Your task to perform on an android device: Clear the cart on ebay.com. Add "macbook air" to the cart on ebay.com Image 0: 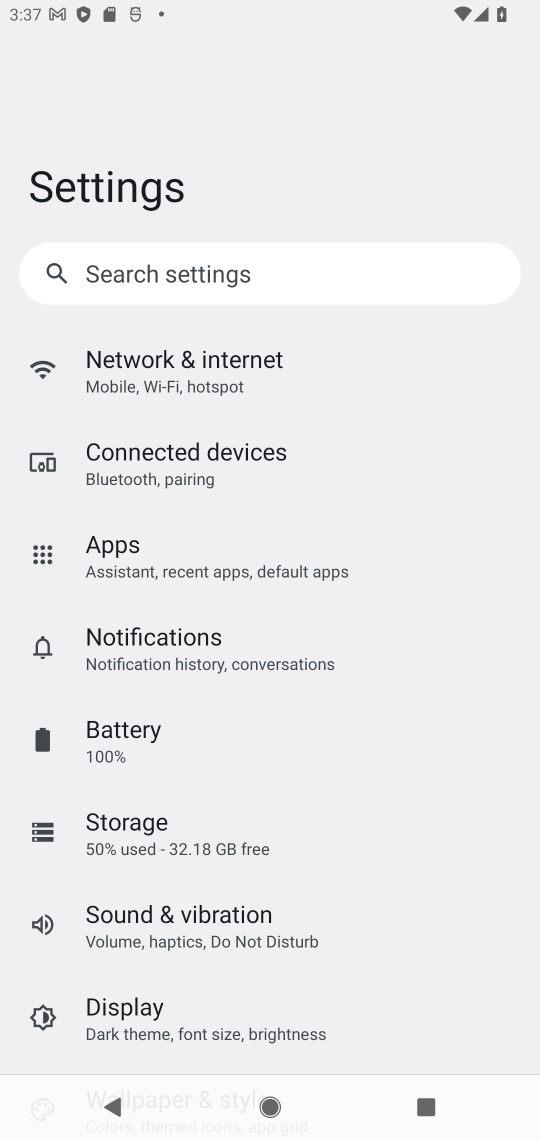
Step 0: press home button
Your task to perform on an android device: Clear the cart on ebay.com. Add "macbook air" to the cart on ebay.com Image 1: 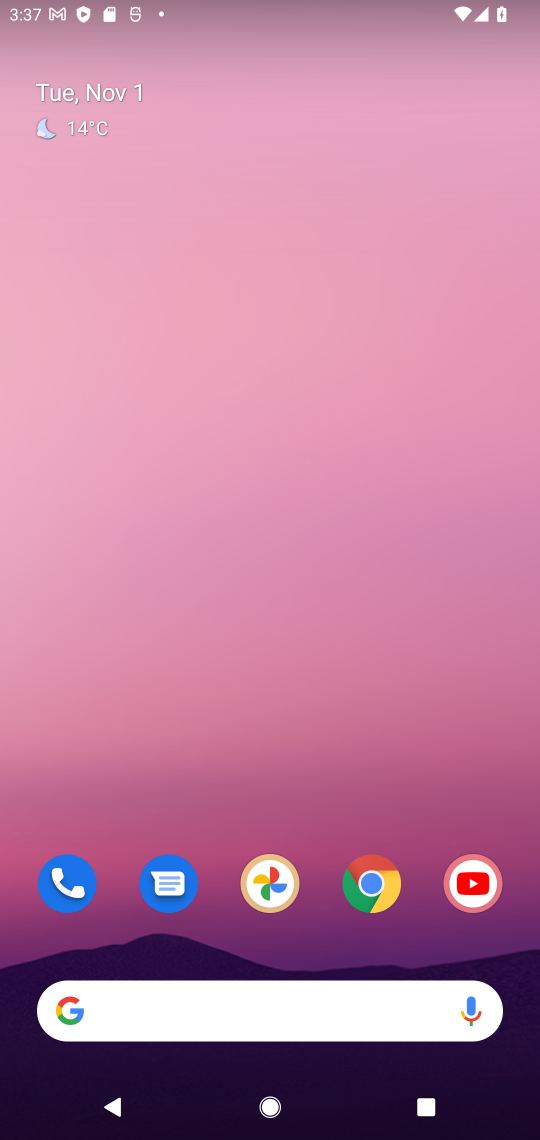
Step 1: click (362, 871)
Your task to perform on an android device: Clear the cart on ebay.com. Add "macbook air" to the cart on ebay.com Image 2: 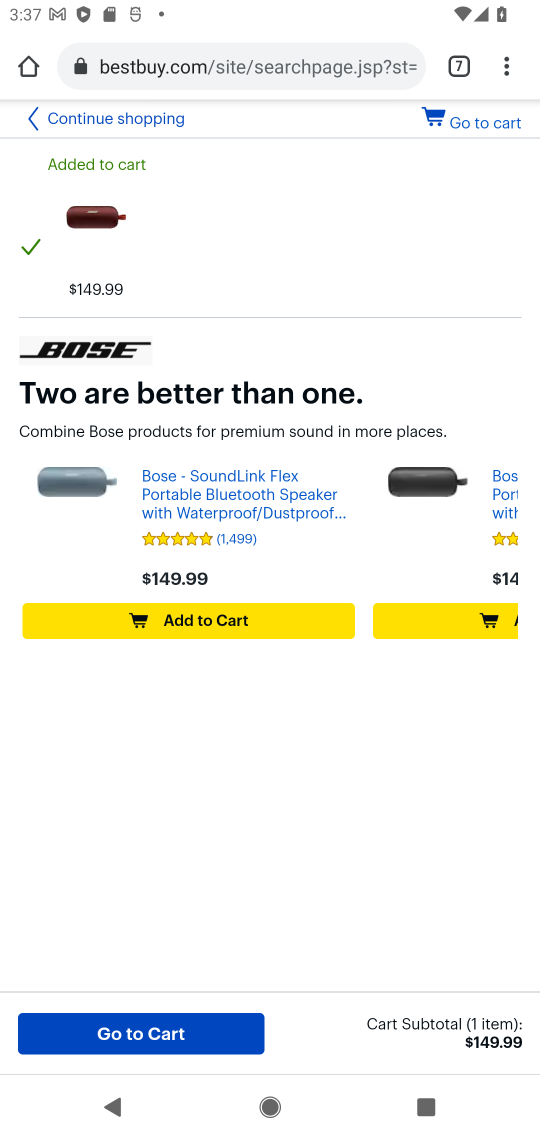
Step 2: click (459, 65)
Your task to perform on an android device: Clear the cart on ebay.com. Add "macbook air" to the cart on ebay.com Image 3: 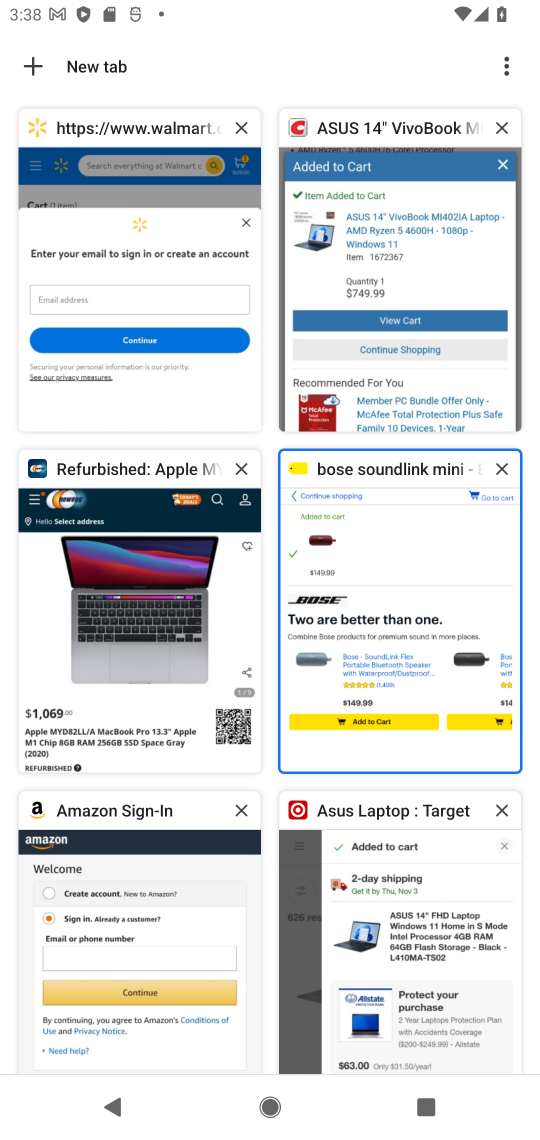
Step 3: drag from (388, 346) to (304, 957)
Your task to perform on an android device: Clear the cart on ebay.com. Add "macbook air" to the cart on ebay.com Image 4: 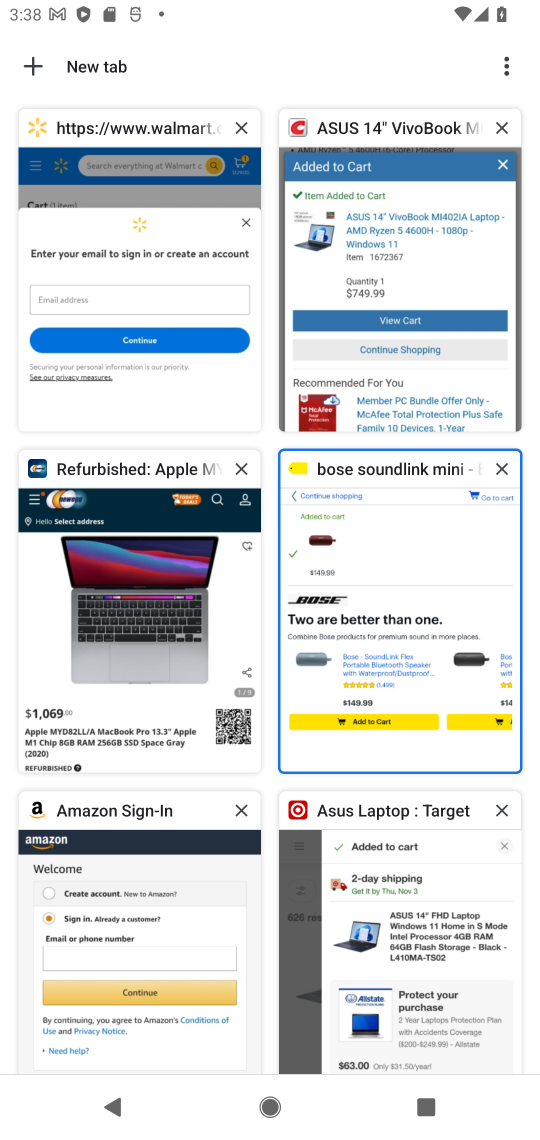
Step 4: drag from (304, 947) to (356, 206)
Your task to perform on an android device: Clear the cart on ebay.com. Add "macbook air" to the cart on ebay.com Image 5: 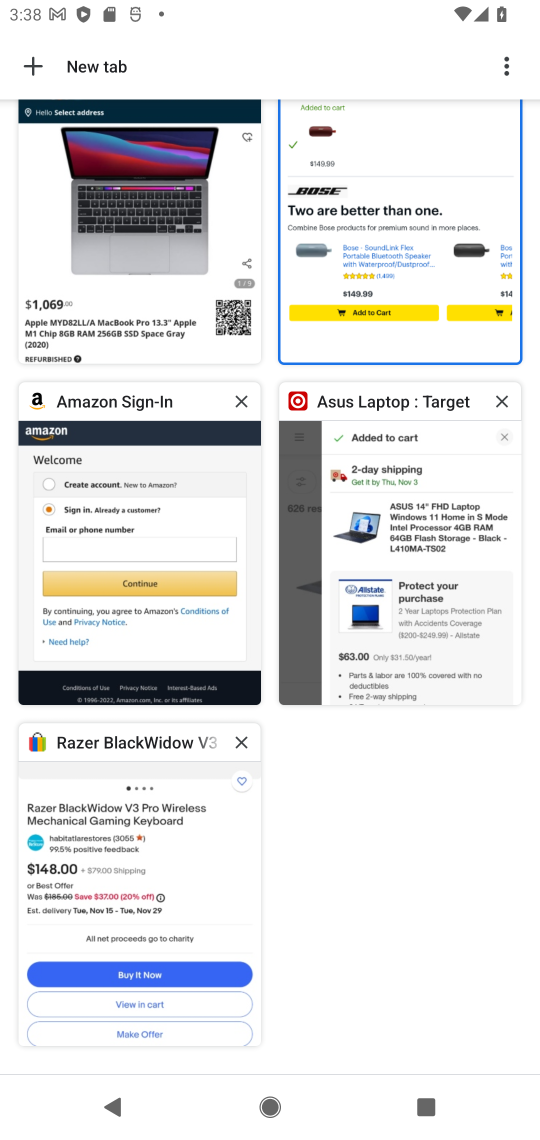
Step 5: click (134, 861)
Your task to perform on an android device: Clear the cart on ebay.com. Add "macbook air" to the cart on ebay.com Image 6: 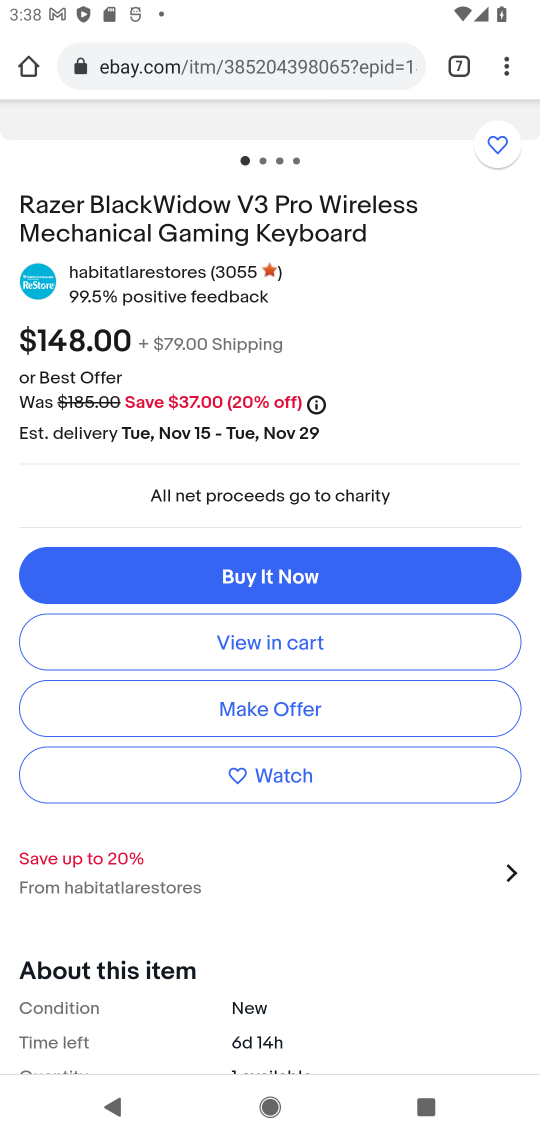
Step 6: drag from (422, 288) to (417, 962)
Your task to perform on an android device: Clear the cart on ebay.com. Add "macbook air" to the cart on ebay.com Image 7: 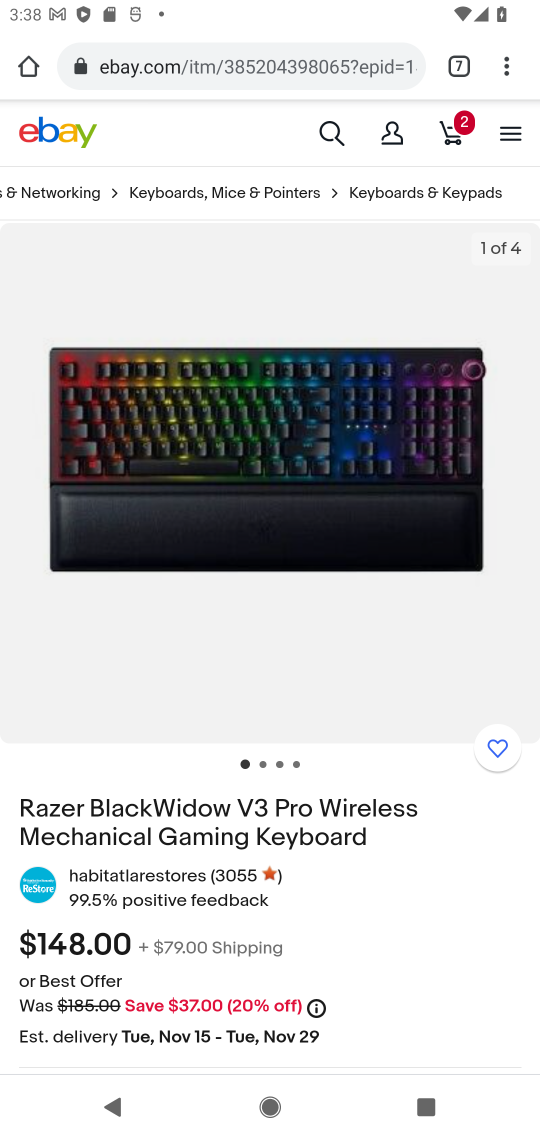
Step 7: click (458, 127)
Your task to perform on an android device: Clear the cart on ebay.com. Add "macbook air" to the cart on ebay.com Image 8: 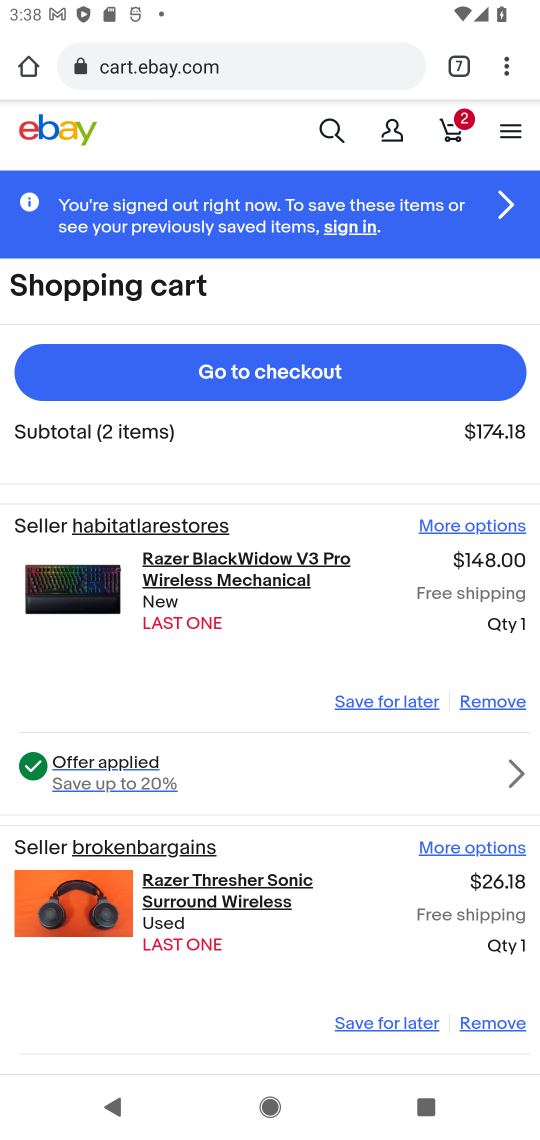
Step 8: click (474, 703)
Your task to perform on an android device: Clear the cart on ebay.com. Add "macbook air" to the cart on ebay.com Image 9: 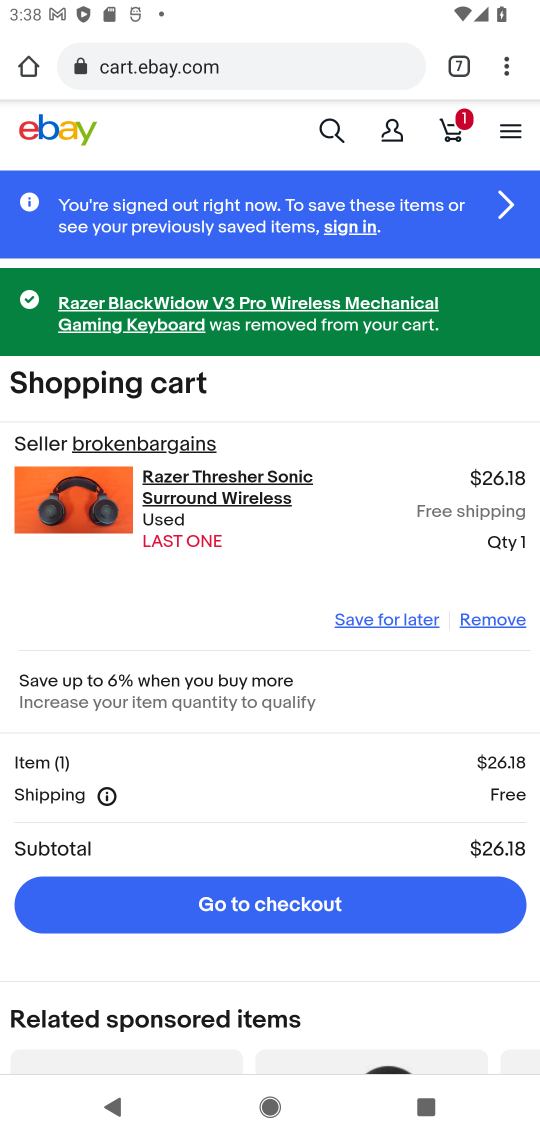
Step 9: click (486, 618)
Your task to perform on an android device: Clear the cart on ebay.com. Add "macbook air" to the cart on ebay.com Image 10: 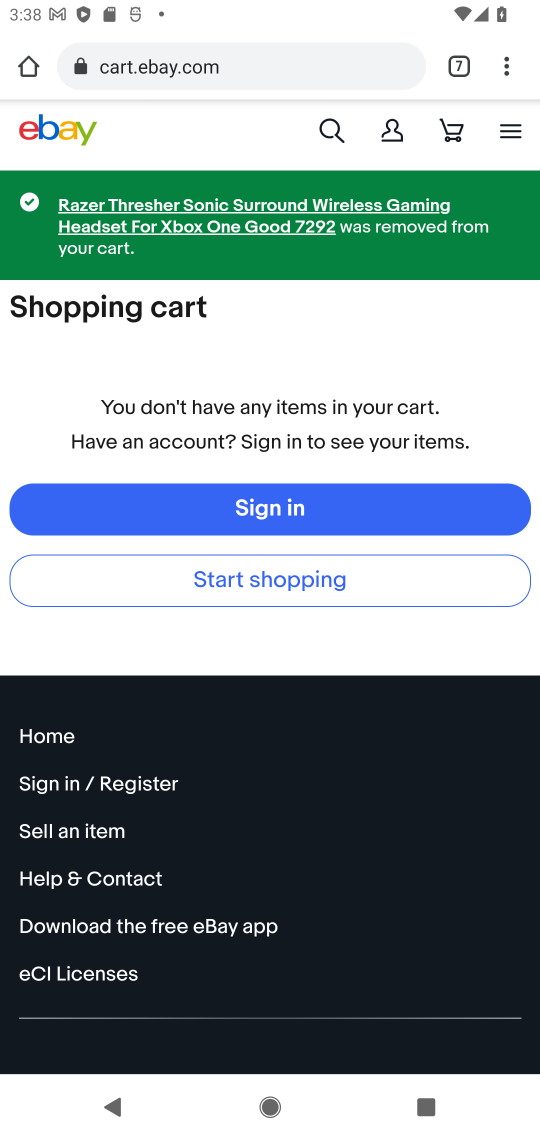
Step 10: click (332, 131)
Your task to perform on an android device: Clear the cart on ebay.com. Add "macbook air" to the cart on ebay.com Image 11: 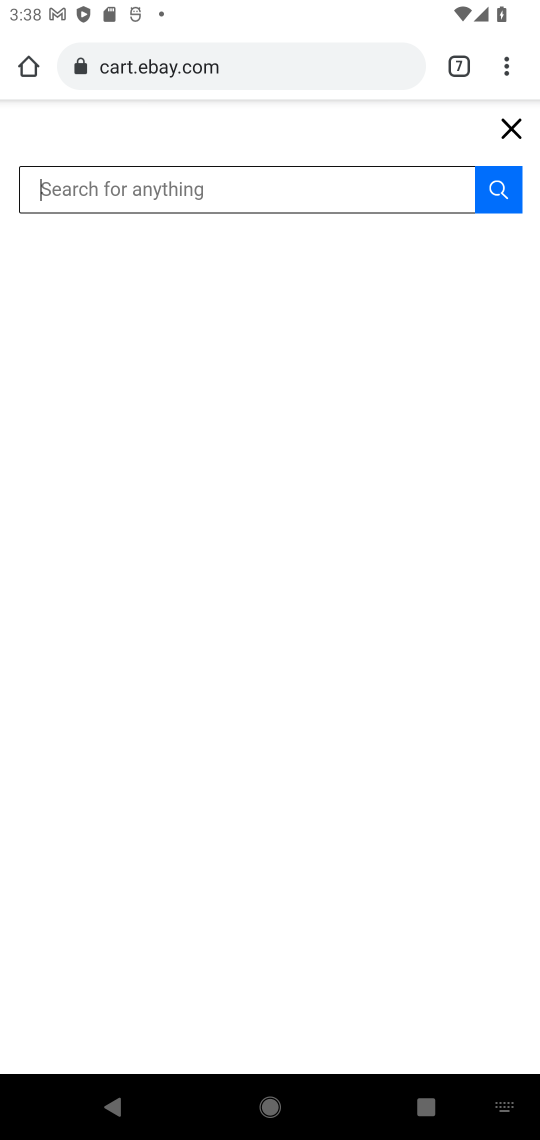
Step 11: click (315, 200)
Your task to perform on an android device: Clear the cart on ebay.com. Add "macbook air" to the cart on ebay.com Image 12: 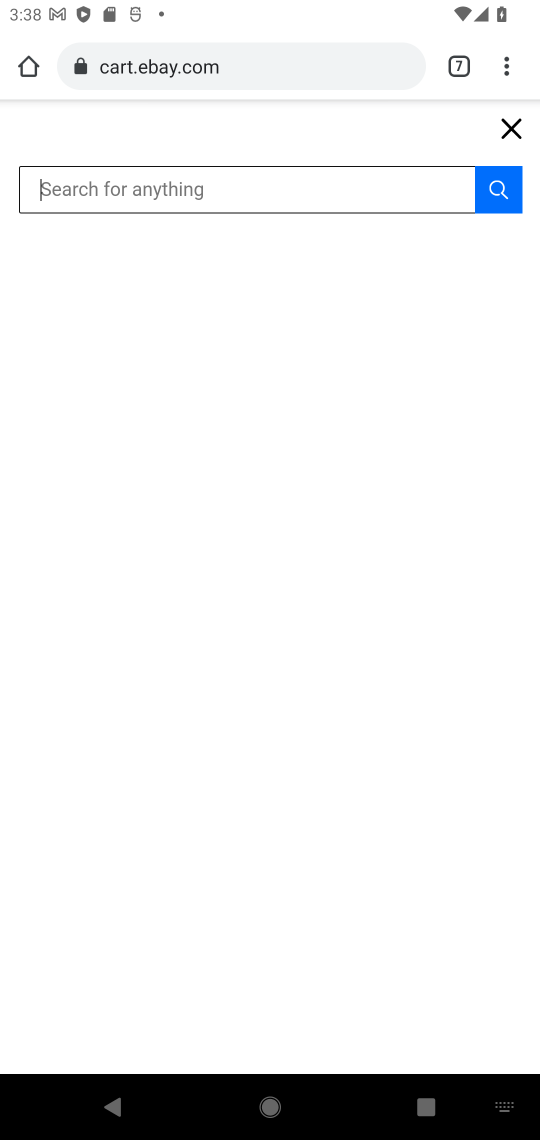
Step 12: type "macbook air"
Your task to perform on an android device: Clear the cart on ebay.com. Add "macbook air" to the cart on ebay.com Image 13: 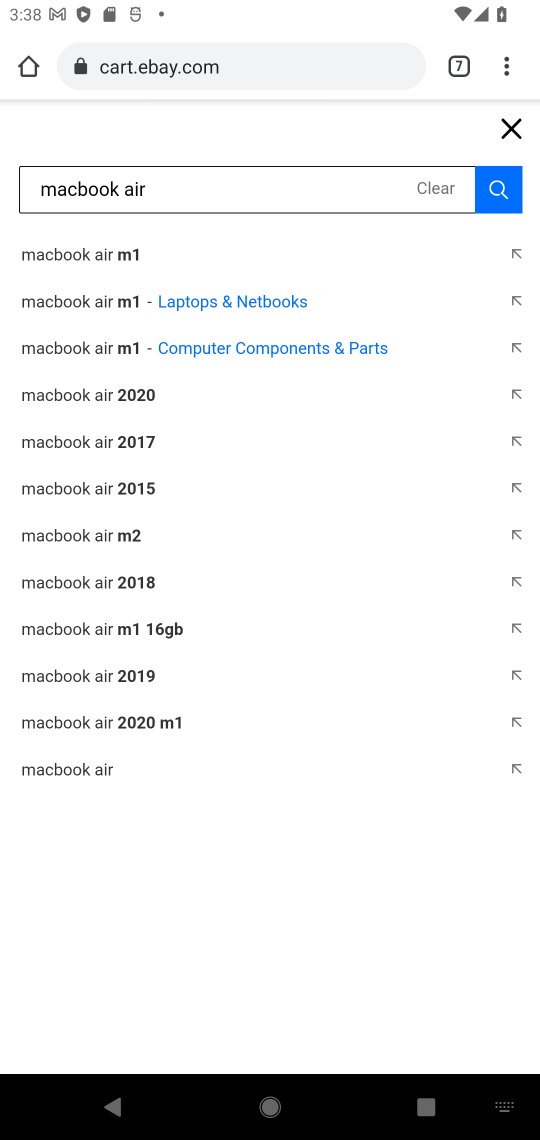
Step 13: click (44, 306)
Your task to perform on an android device: Clear the cart on ebay.com. Add "macbook air" to the cart on ebay.com Image 14: 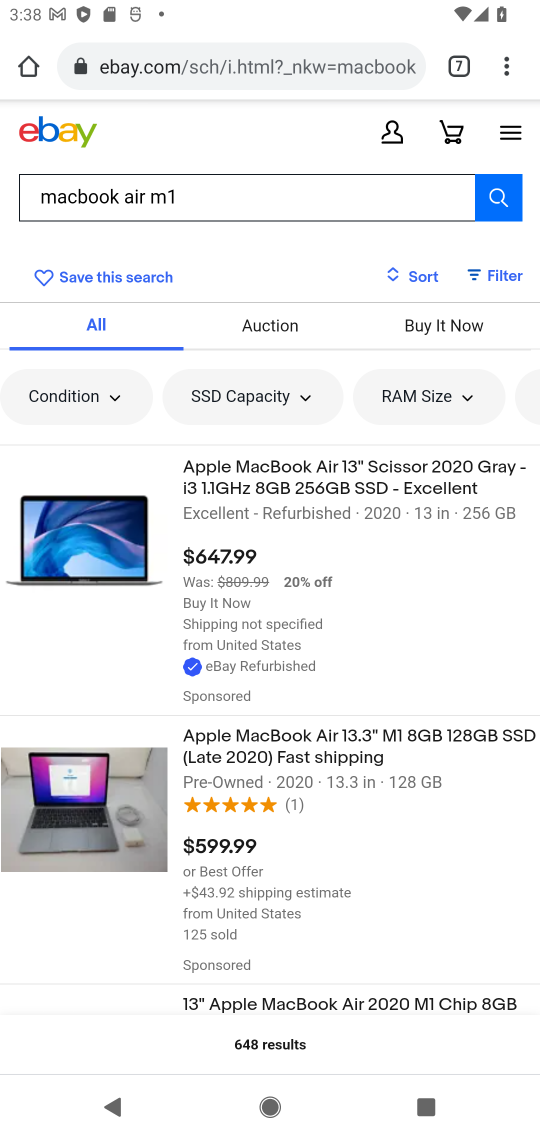
Step 14: click (262, 493)
Your task to perform on an android device: Clear the cart on ebay.com. Add "macbook air" to the cart on ebay.com Image 15: 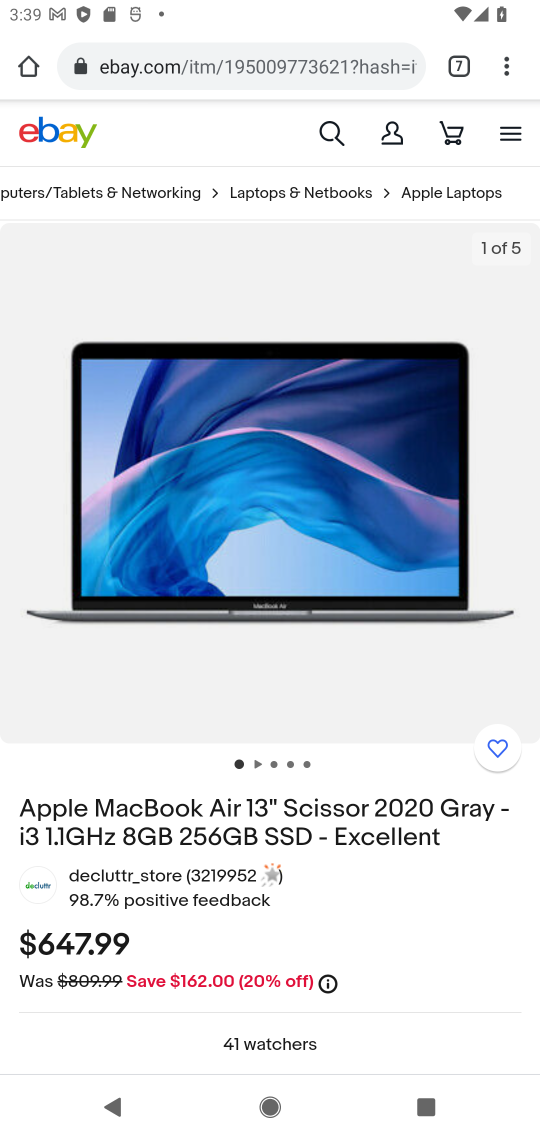
Step 15: drag from (419, 920) to (470, 356)
Your task to perform on an android device: Clear the cart on ebay.com. Add "macbook air" to the cart on ebay.com Image 16: 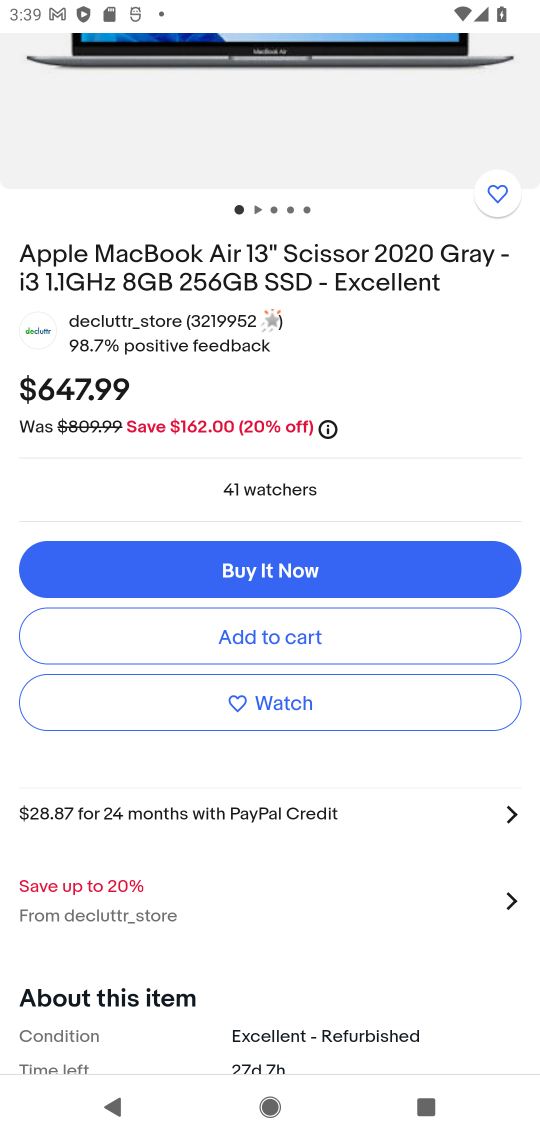
Step 16: click (326, 636)
Your task to perform on an android device: Clear the cart on ebay.com. Add "macbook air" to the cart on ebay.com Image 17: 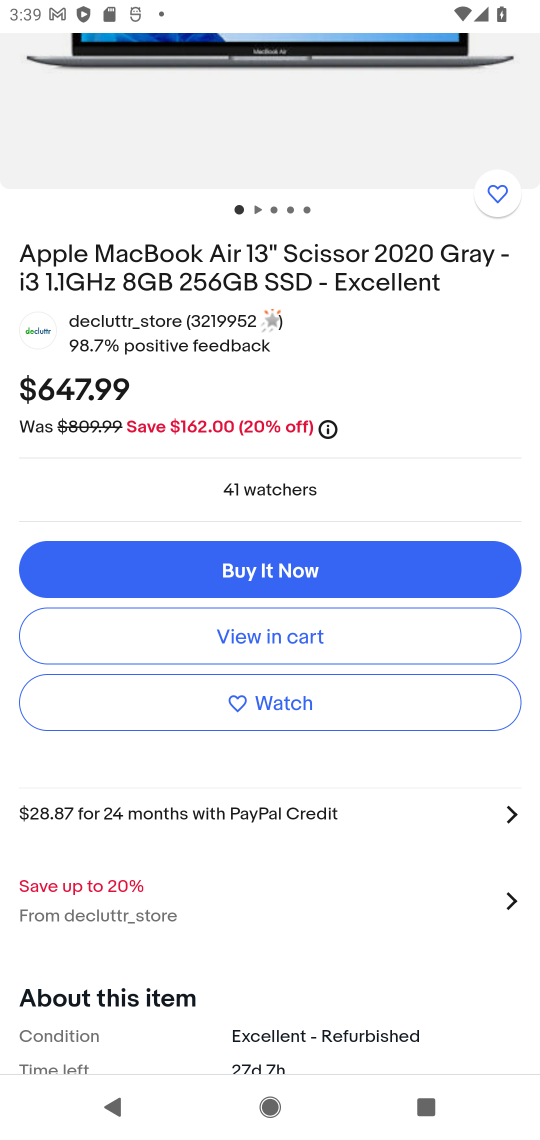
Step 17: task complete